Your task to perform on an android device: delete a single message in the gmail app Image 0: 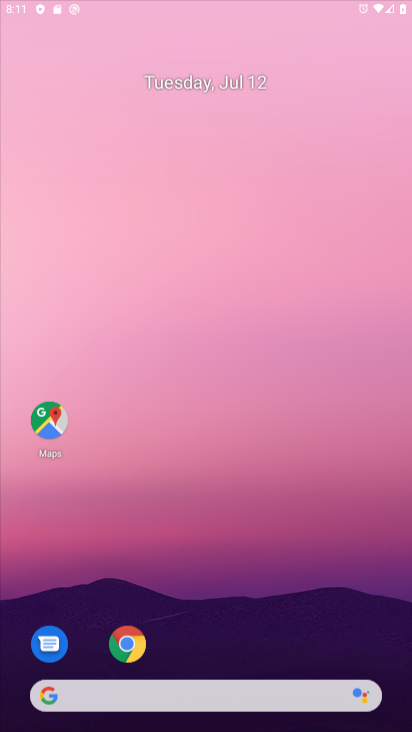
Step 0: click (97, 688)
Your task to perform on an android device: delete a single message in the gmail app Image 1: 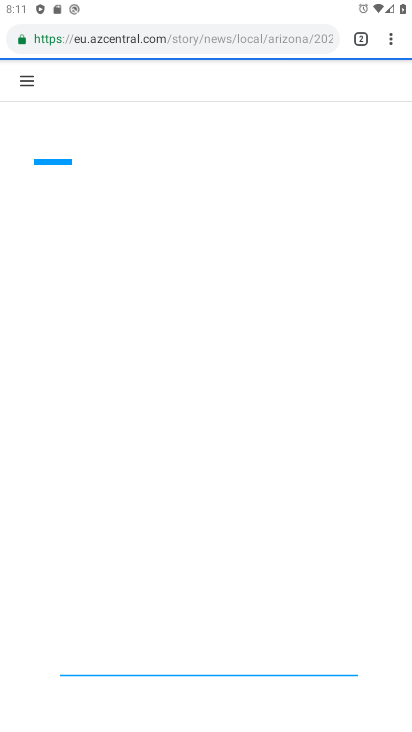
Step 1: press home button
Your task to perform on an android device: delete a single message in the gmail app Image 2: 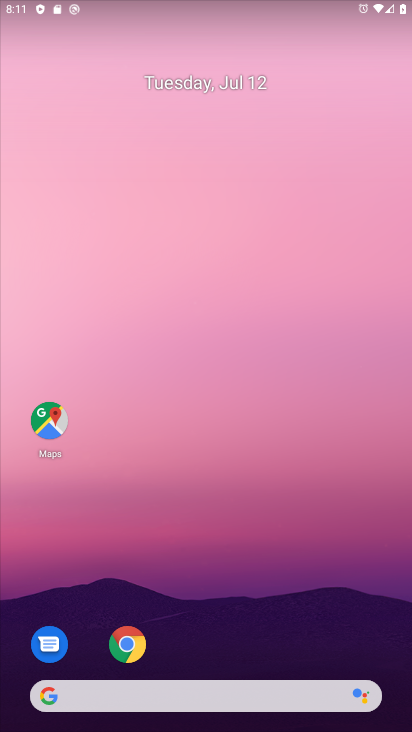
Step 2: drag from (19, 726) to (357, 7)
Your task to perform on an android device: delete a single message in the gmail app Image 3: 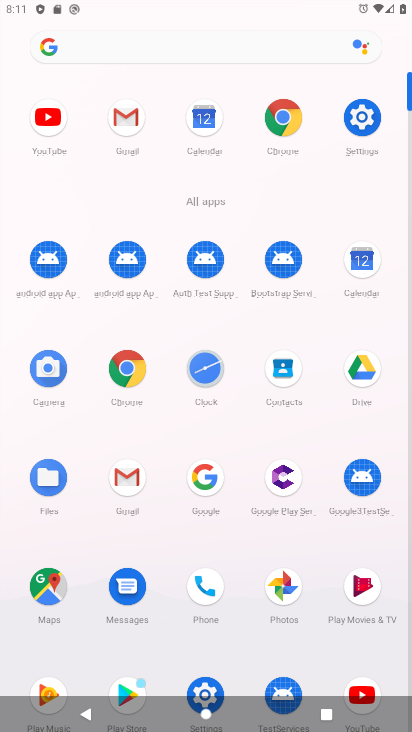
Step 3: click (139, 118)
Your task to perform on an android device: delete a single message in the gmail app Image 4: 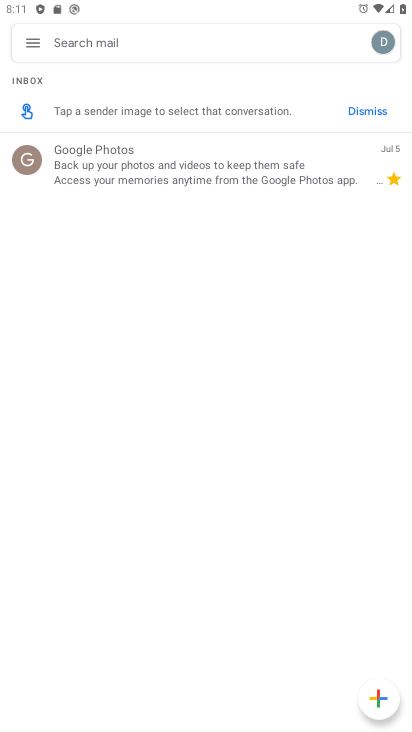
Step 4: click (250, 159)
Your task to perform on an android device: delete a single message in the gmail app Image 5: 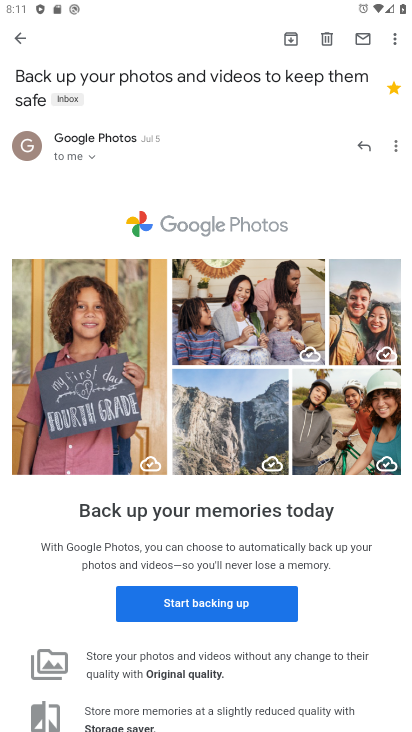
Step 5: click (392, 140)
Your task to perform on an android device: delete a single message in the gmail app Image 6: 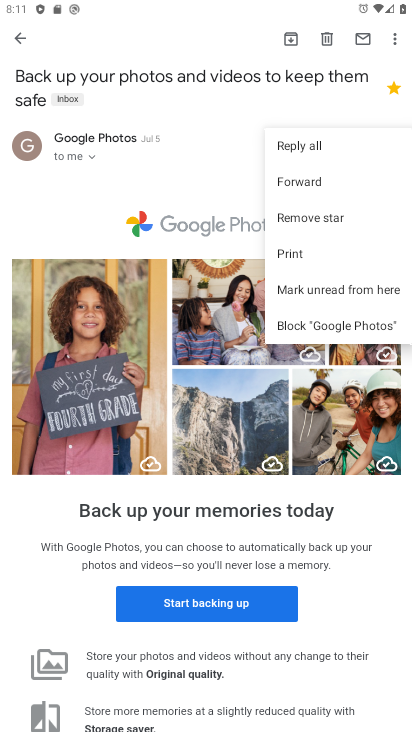
Step 6: click (384, 36)
Your task to perform on an android device: delete a single message in the gmail app Image 7: 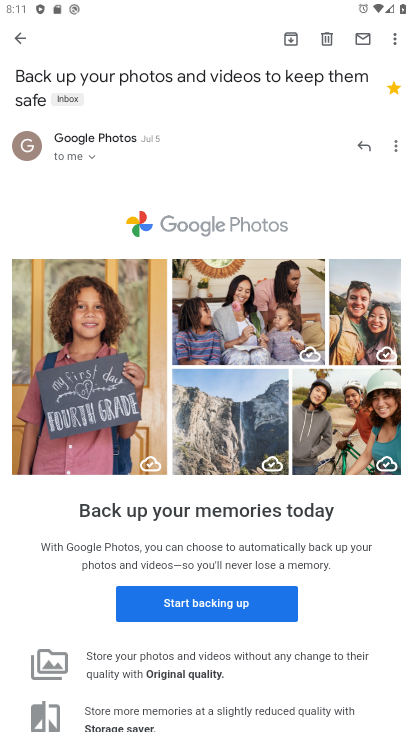
Step 7: click (389, 35)
Your task to perform on an android device: delete a single message in the gmail app Image 8: 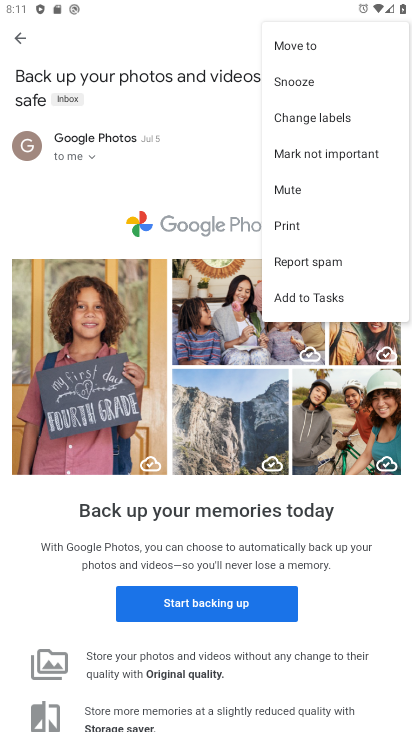
Step 8: click (23, 42)
Your task to perform on an android device: delete a single message in the gmail app Image 9: 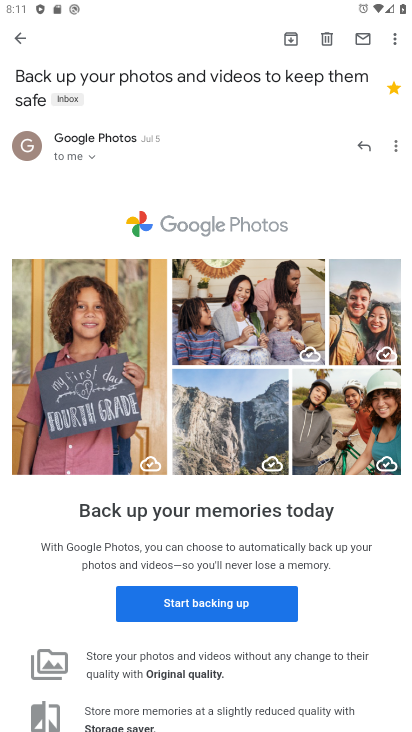
Step 9: click (20, 38)
Your task to perform on an android device: delete a single message in the gmail app Image 10: 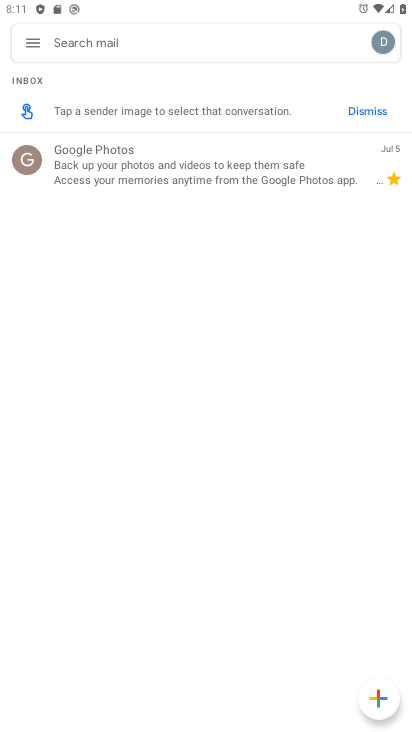
Step 10: click (162, 173)
Your task to perform on an android device: delete a single message in the gmail app Image 11: 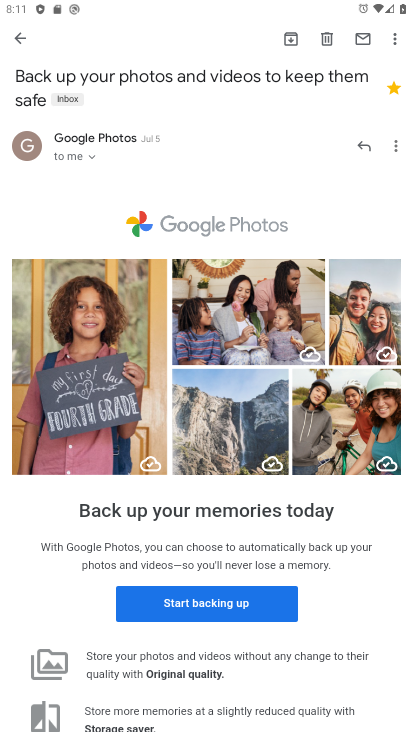
Step 11: click (20, 43)
Your task to perform on an android device: delete a single message in the gmail app Image 12: 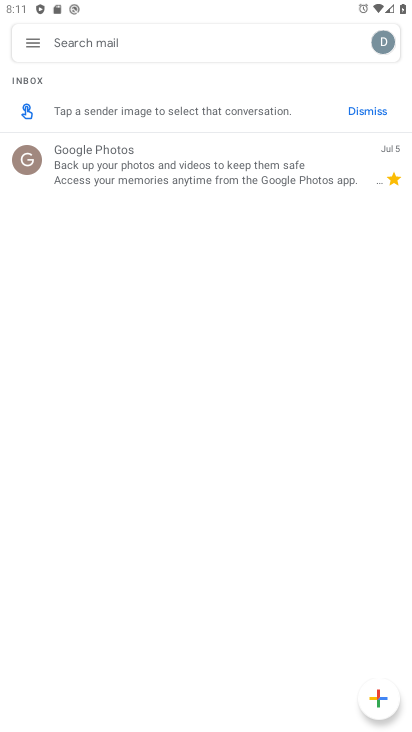
Step 12: click (183, 155)
Your task to perform on an android device: delete a single message in the gmail app Image 13: 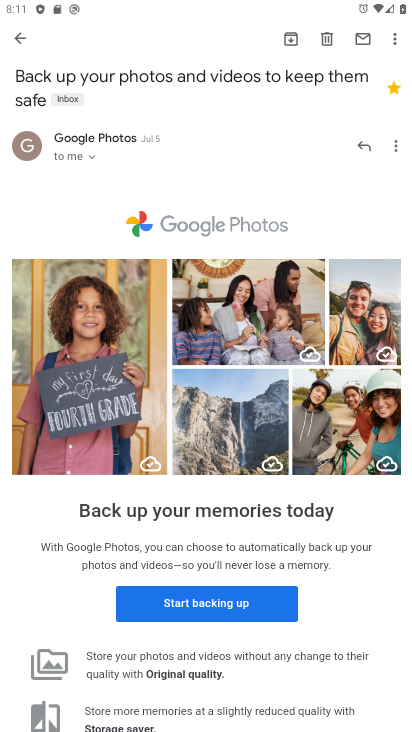
Step 13: click (324, 36)
Your task to perform on an android device: delete a single message in the gmail app Image 14: 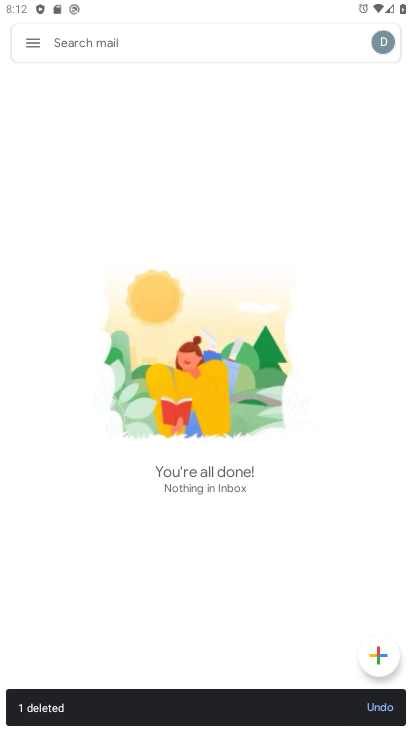
Step 14: task complete